Your task to perform on an android device: set the stopwatch Image 0: 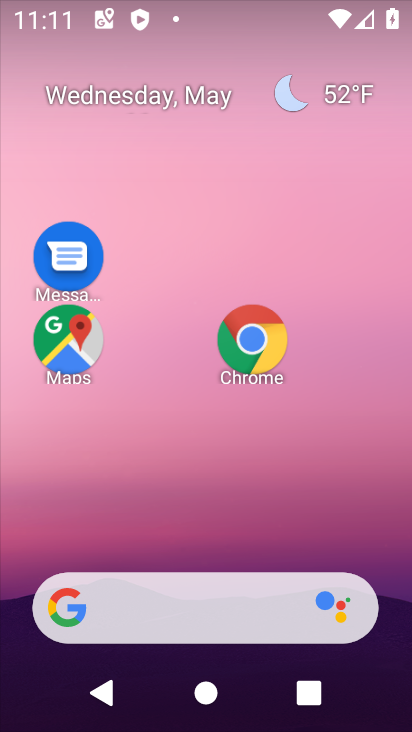
Step 0: drag from (204, 495) to (209, 74)
Your task to perform on an android device: set the stopwatch Image 1: 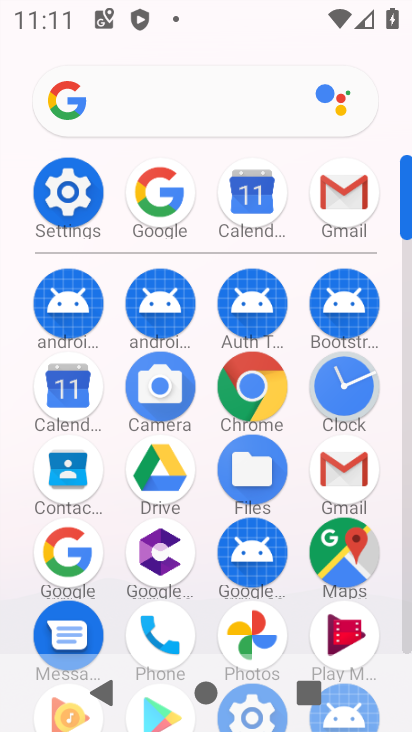
Step 1: click (344, 388)
Your task to perform on an android device: set the stopwatch Image 2: 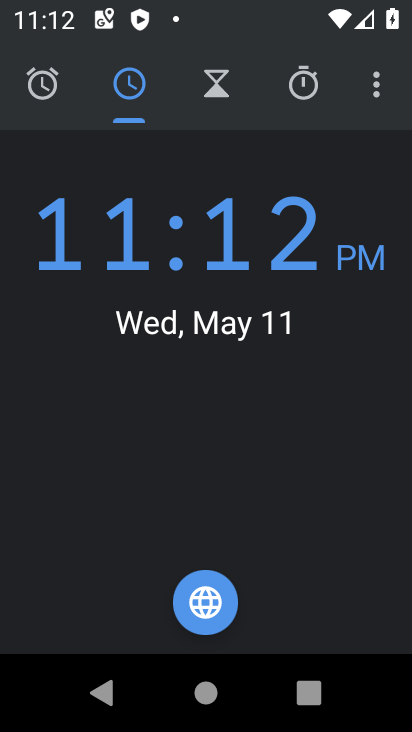
Step 2: click (307, 88)
Your task to perform on an android device: set the stopwatch Image 3: 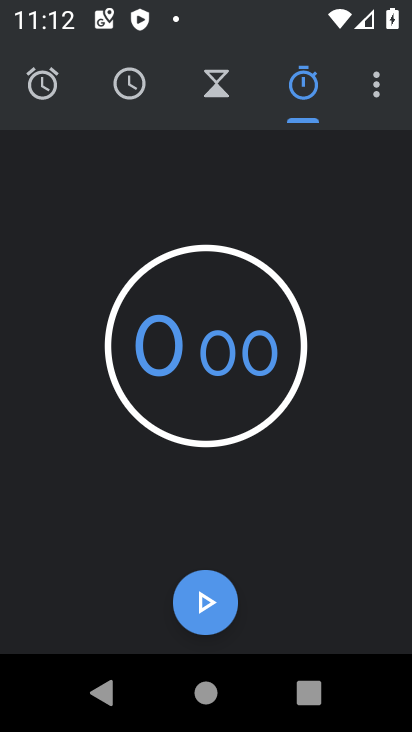
Step 3: click (200, 608)
Your task to perform on an android device: set the stopwatch Image 4: 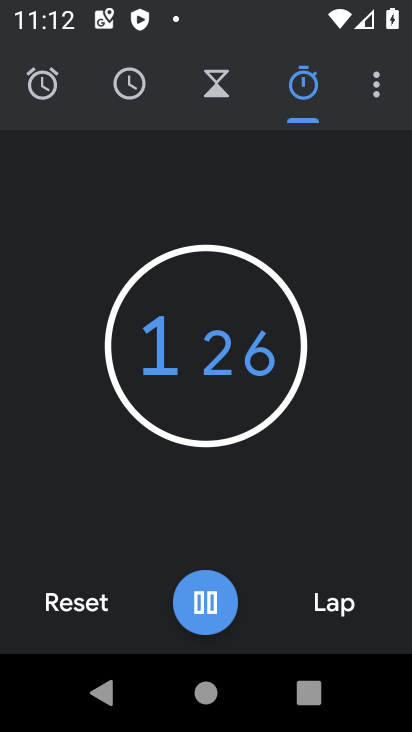
Step 4: click (200, 608)
Your task to perform on an android device: set the stopwatch Image 5: 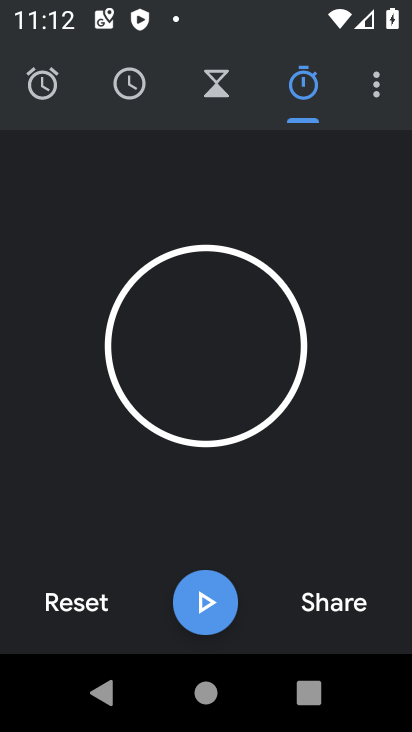
Step 5: task complete